Your task to perform on an android device: toggle notifications settings in the gmail app Image 0: 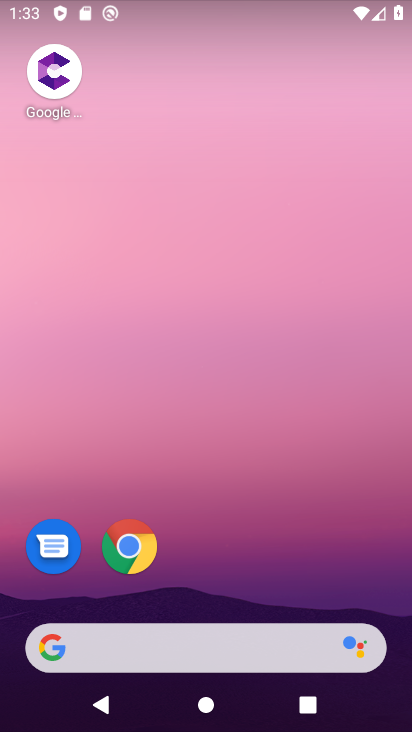
Step 0: drag from (194, 597) to (296, 82)
Your task to perform on an android device: toggle notifications settings in the gmail app Image 1: 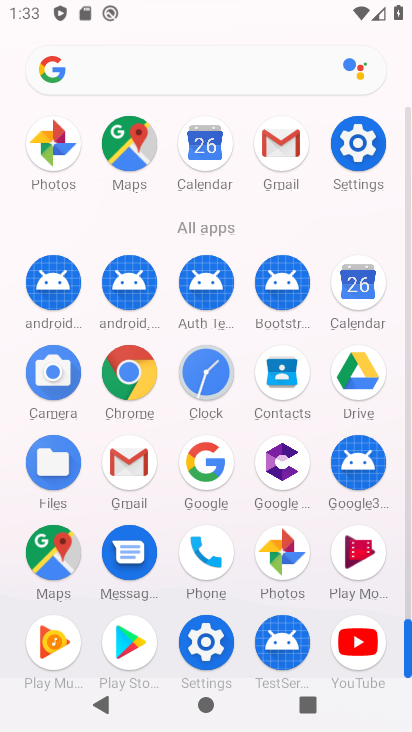
Step 1: drag from (213, 634) to (293, 388)
Your task to perform on an android device: toggle notifications settings in the gmail app Image 2: 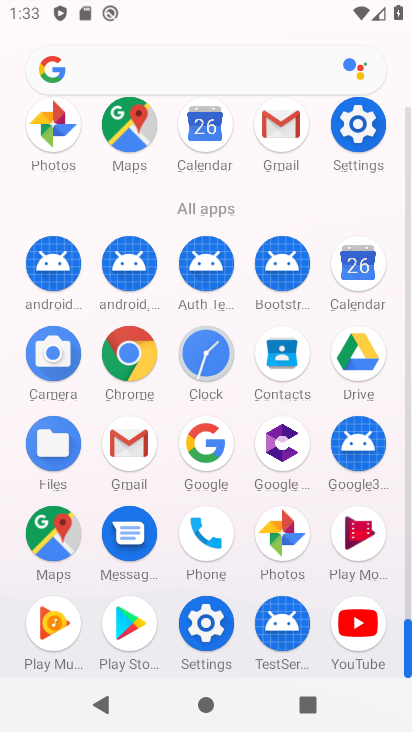
Step 2: click (138, 444)
Your task to perform on an android device: toggle notifications settings in the gmail app Image 3: 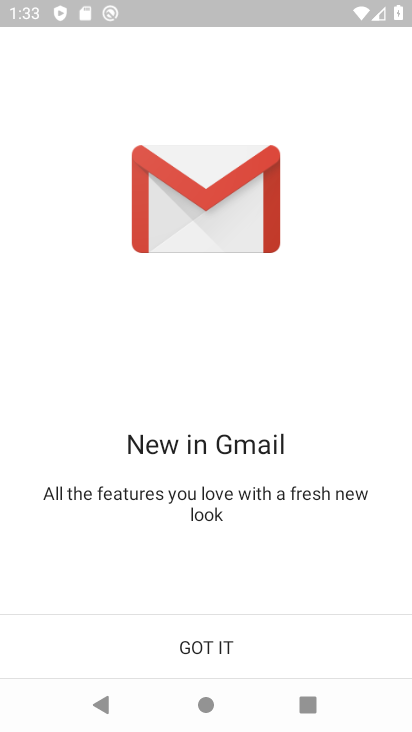
Step 3: click (203, 677)
Your task to perform on an android device: toggle notifications settings in the gmail app Image 4: 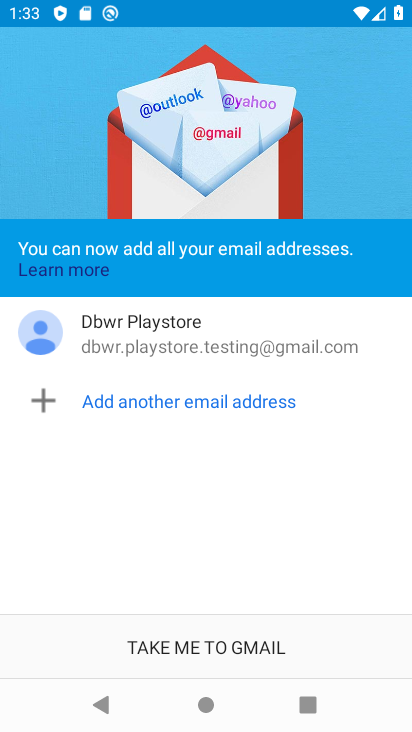
Step 4: click (247, 657)
Your task to perform on an android device: toggle notifications settings in the gmail app Image 5: 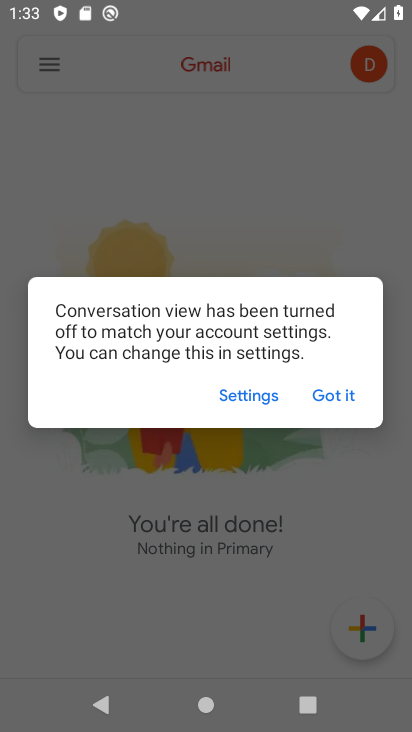
Step 5: click (348, 399)
Your task to perform on an android device: toggle notifications settings in the gmail app Image 6: 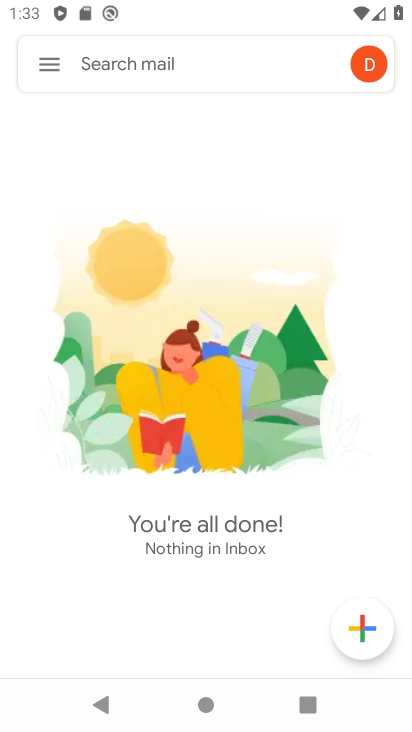
Step 6: click (59, 78)
Your task to perform on an android device: toggle notifications settings in the gmail app Image 7: 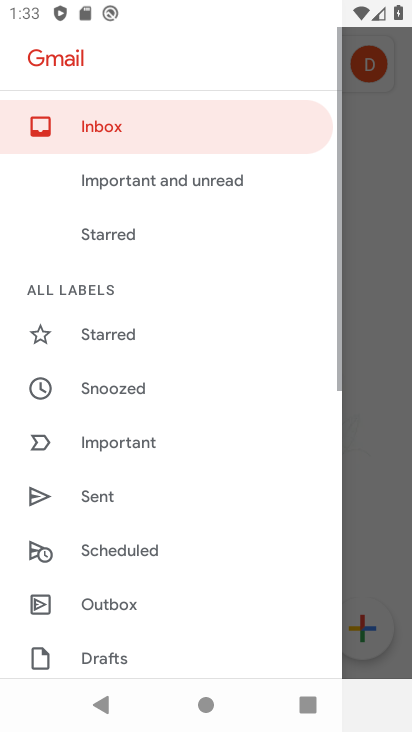
Step 7: drag from (155, 623) to (300, 184)
Your task to perform on an android device: toggle notifications settings in the gmail app Image 8: 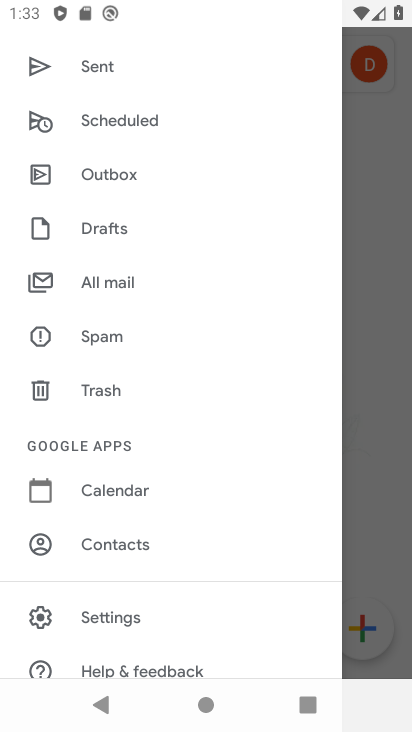
Step 8: click (143, 620)
Your task to perform on an android device: toggle notifications settings in the gmail app Image 9: 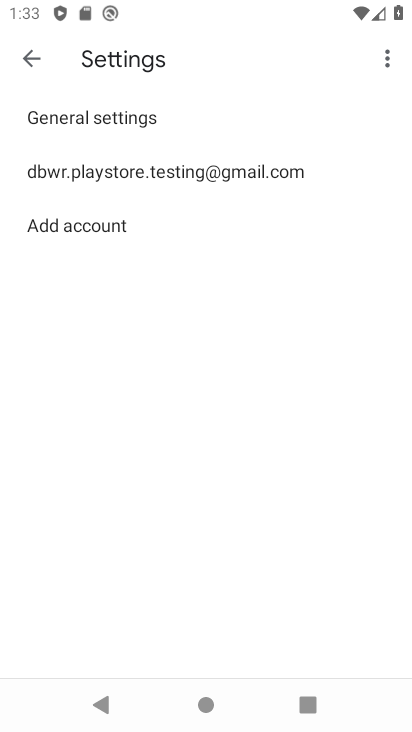
Step 9: click (204, 171)
Your task to perform on an android device: toggle notifications settings in the gmail app Image 10: 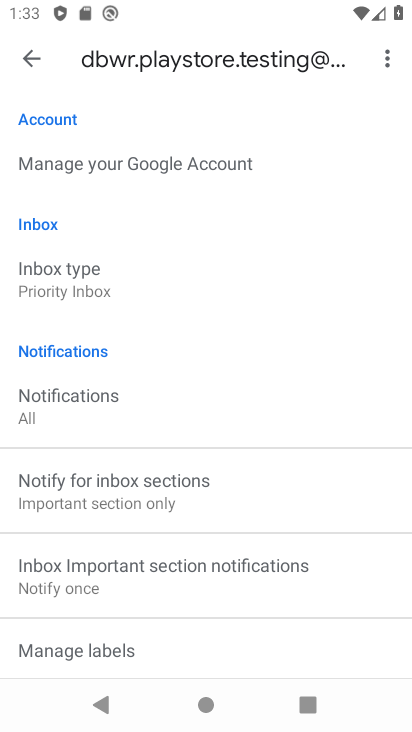
Step 10: drag from (216, 583) to (359, 87)
Your task to perform on an android device: toggle notifications settings in the gmail app Image 11: 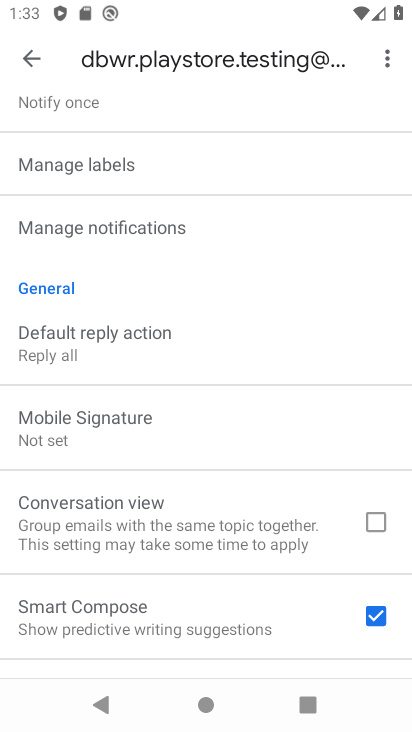
Step 11: click (200, 244)
Your task to perform on an android device: toggle notifications settings in the gmail app Image 12: 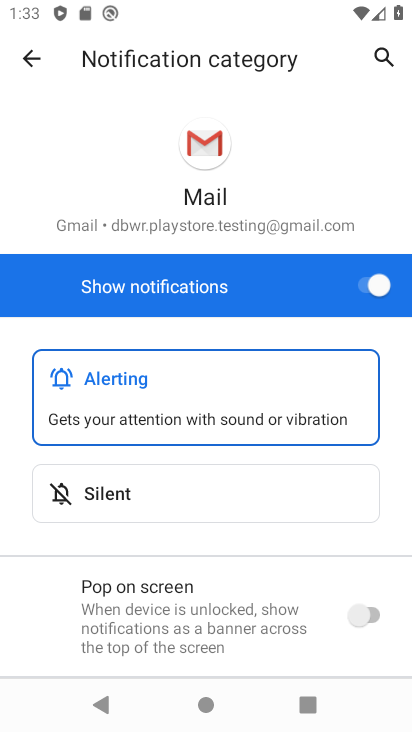
Step 12: click (349, 287)
Your task to perform on an android device: toggle notifications settings in the gmail app Image 13: 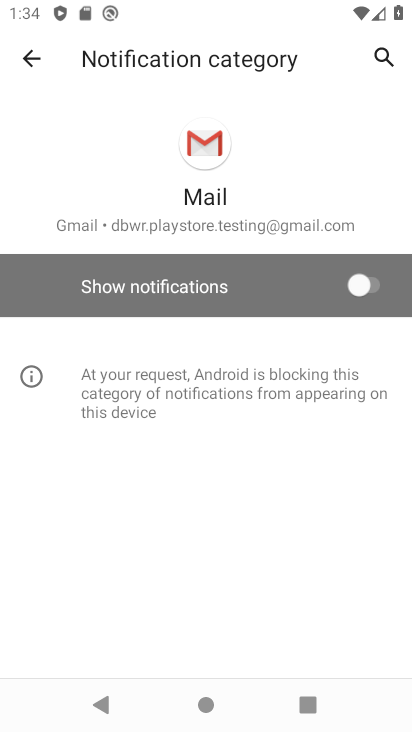
Step 13: task complete